Your task to perform on an android device: toggle improve location accuracy Image 0: 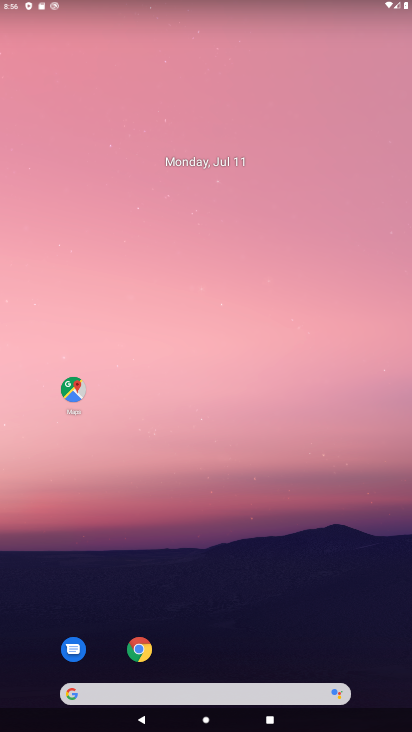
Step 0: drag from (226, 688) to (319, 117)
Your task to perform on an android device: toggle improve location accuracy Image 1: 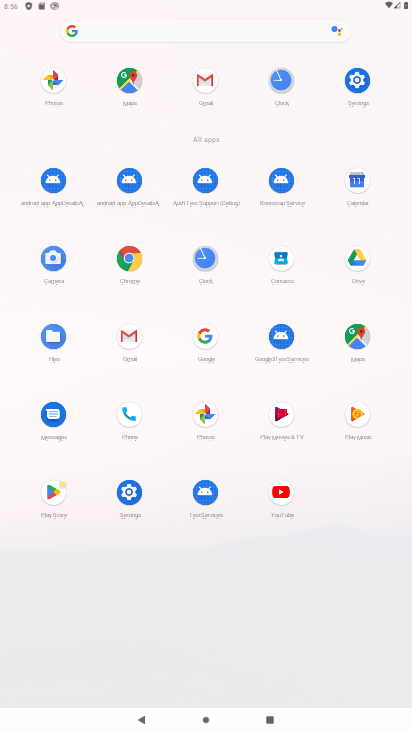
Step 1: click (123, 505)
Your task to perform on an android device: toggle improve location accuracy Image 2: 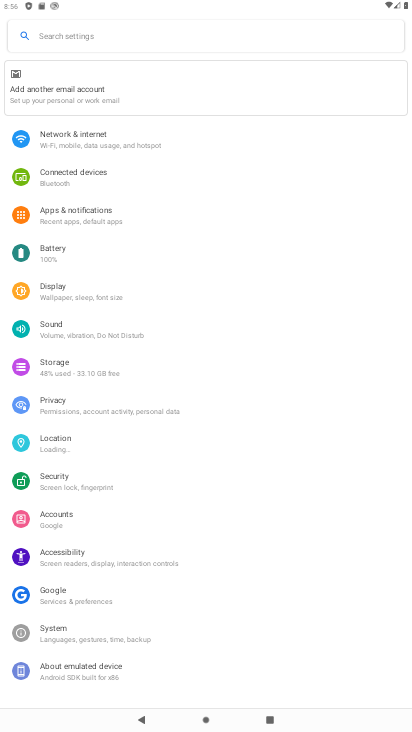
Step 2: click (81, 441)
Your task to perform on an android device: toggle improve location accuracy Image 3: 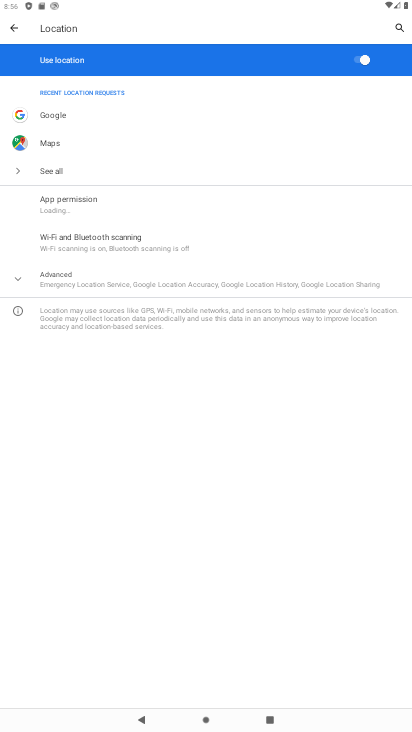
Step 3: click (147, 288)
Your task to perform on an android device: toggle improve location accuracy Image 4: 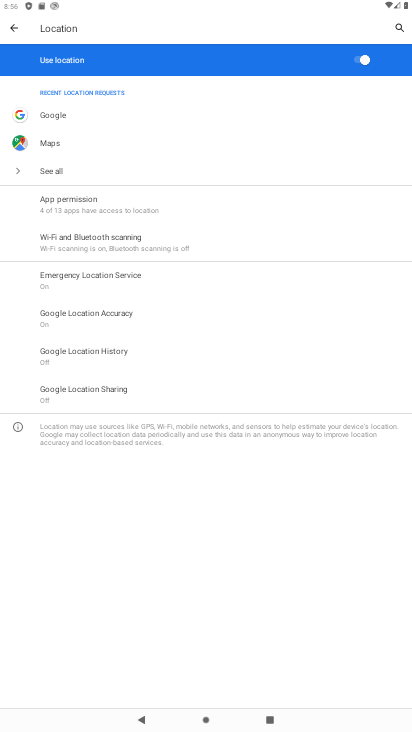
Step 4: click (128, 317)
Your task to perform on an android device: toggle improve location accuracy Image 5: 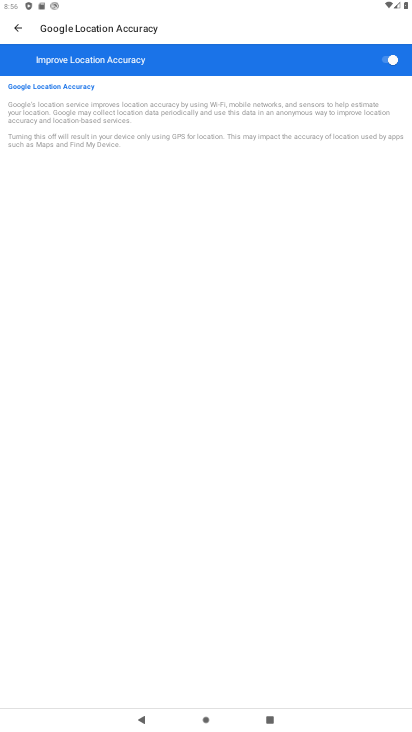
Step 5: click (377, 57)
Your task to perform on an android device: toggle improve location accuracy Image 6: 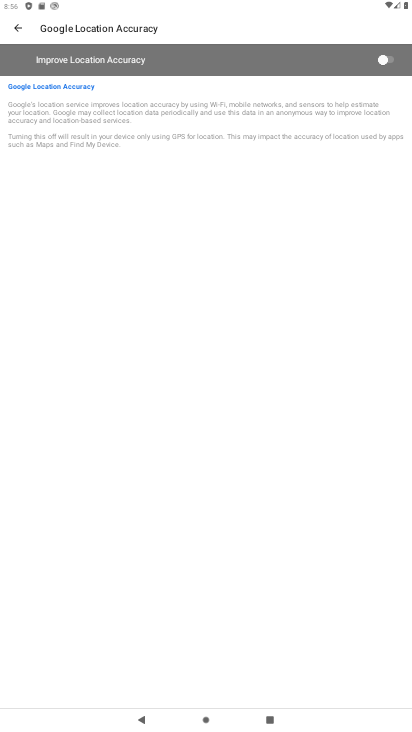
Step 6: task complete